Your task to perform on an android device: Open the stopwatch Image 0: 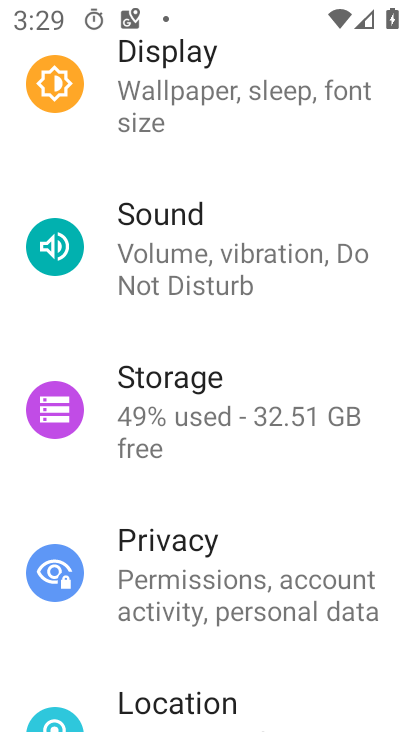
Step 0: press home button
Your task to perform on an android device: Open the stopwatch Image 1: 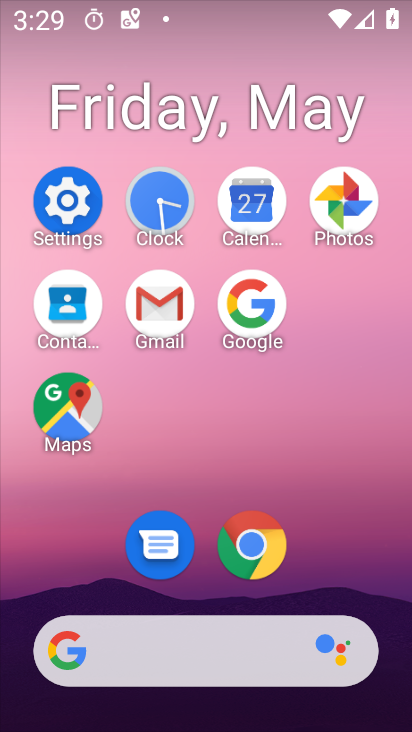
Step 1: click (165, 201)
Your task to perform on an android device: Open the stopwatch Image 2: 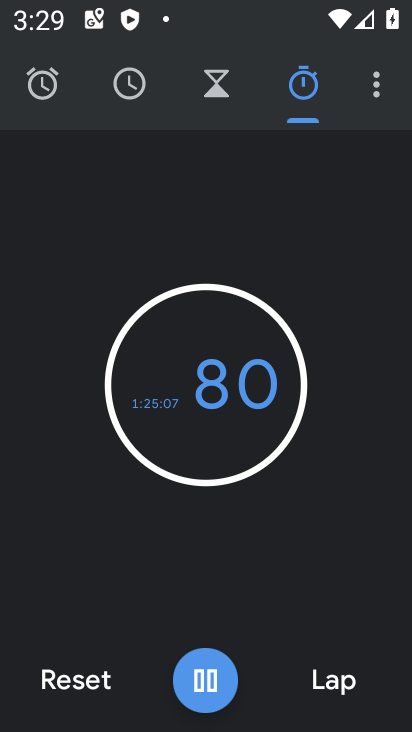
Step 2: task complete